Your task to perform on an android device: Find coffee shops on Maps Image 0: 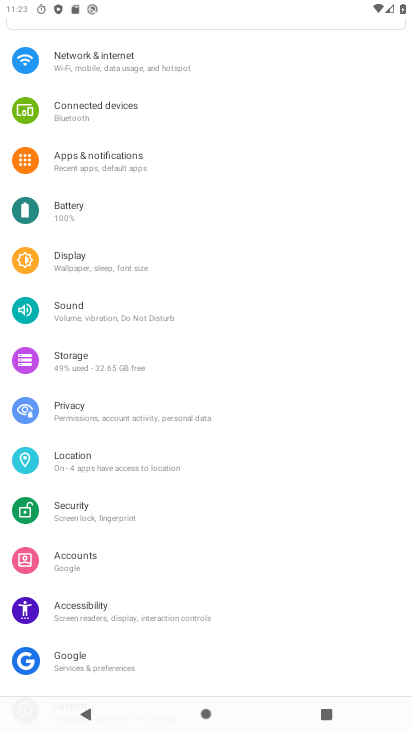
Step 0: press home button
Your task to perform on an android device: Find coffee shops on Maps Image 1: 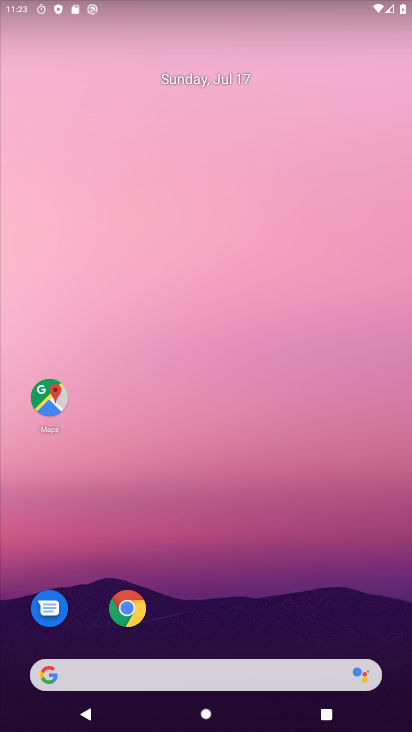
Step 1: click (55, 399)
Your task to perform on an android device: Find coffee shops on Maps Image 2: 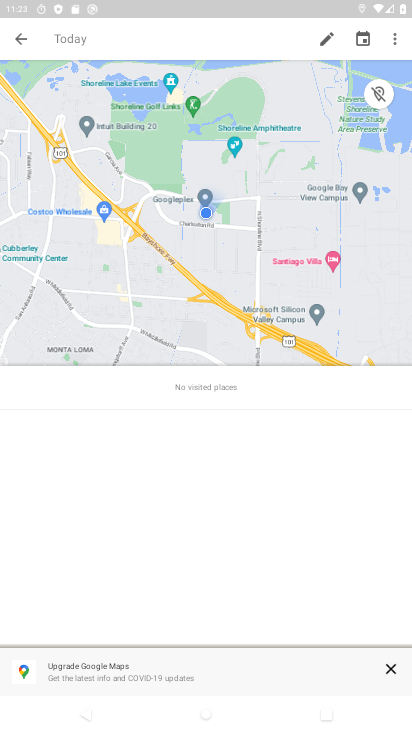
Step 2: click (22, 43)
Your task to perform on an android device: Find coffee shops on Maps Image 3: 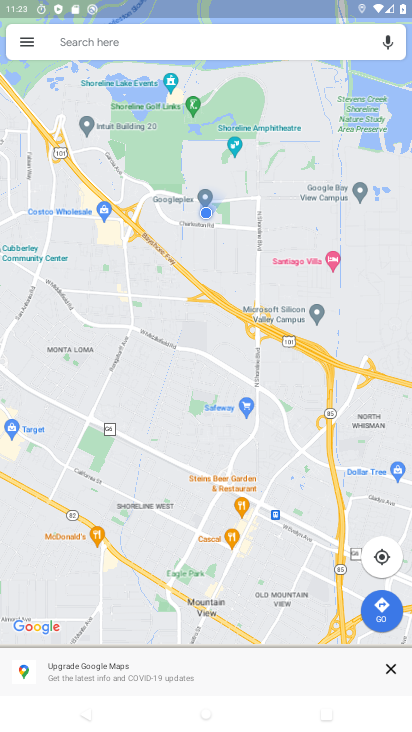
Step 3: click (125, 38)
Your task to perform on an android device: Find coffee shops on Maps Image 4: 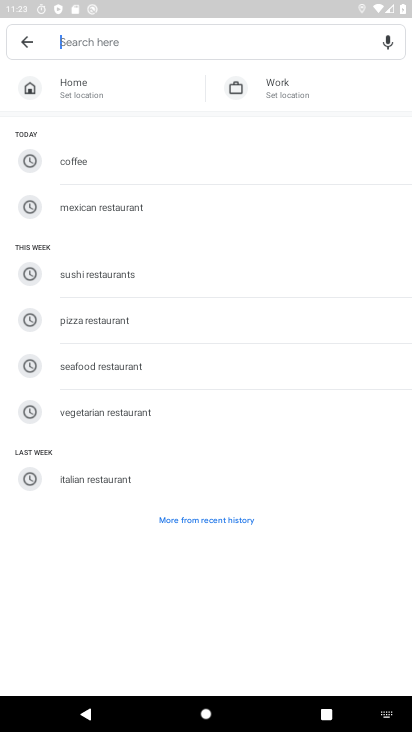
Step 4: type "coffee shops"
Your task to perform on an android device: Find coffee shops on Maps Image 5: 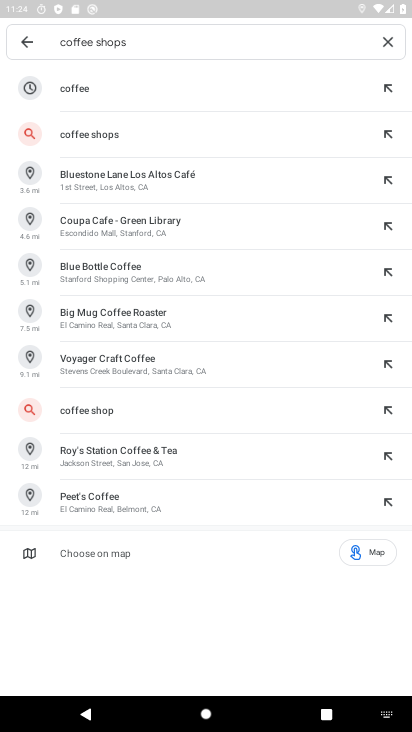
Step 5: click (139, 131)
Your task to perform on an android device: Find coffee shops on Maps Image 6: 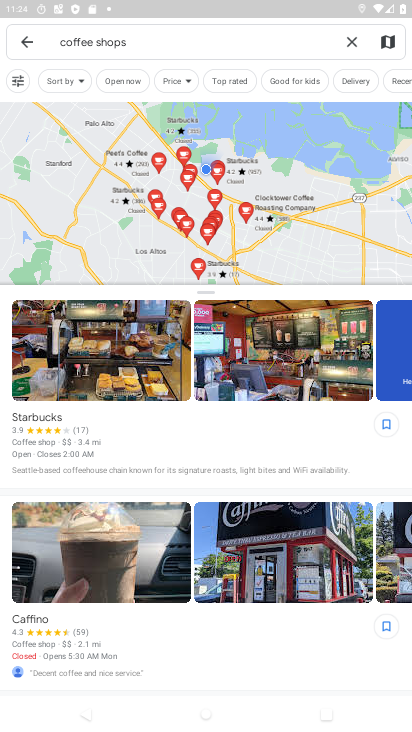
Step 6: task complete